Your task to perform on an android device: What's US dollar exchange rate against the Chinese Yuan? Image 0: 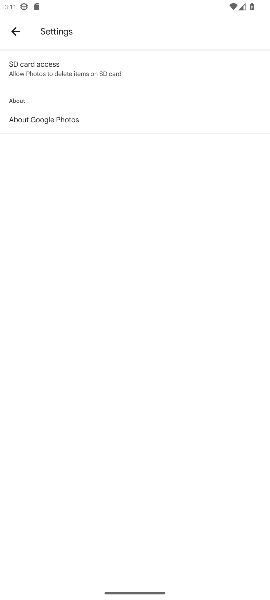
Step 0: press home button
Your task to perform on an android device: What's US dollar exchange rate against the Chinese Yuan? Image 1: 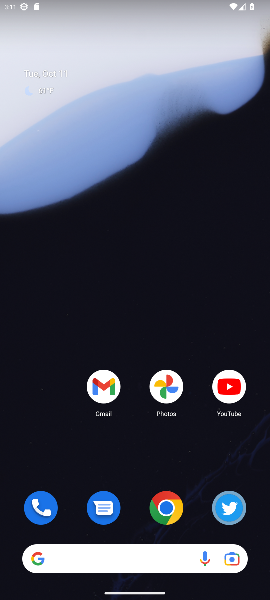
Step 1: click (171, 510)
Your task to perform on an android device: What's US dollar exchange rate against the Chinese Yuan? Image 2: 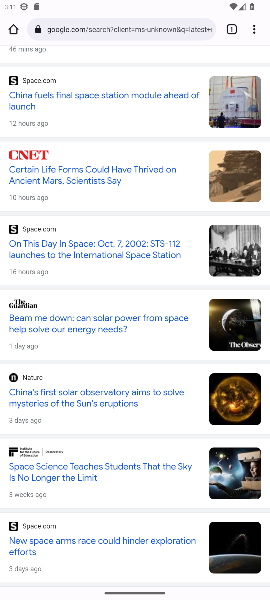
Step 2: click (160, 30)
Your task to perform on an android device: What's US dollar exchange rate against the Chinese Yuan? Image 3: 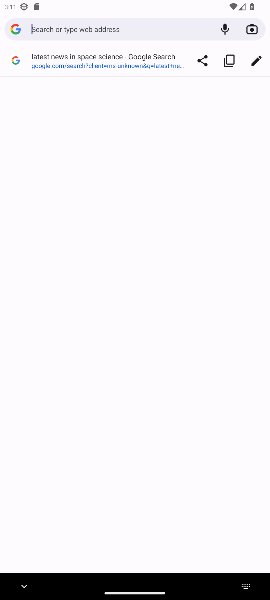
Step 3: type "US dollar exchange rate against the Chinese Yuan"
Your task to perform on an android device: What's US dollar exchange rate against the Chinese Yuan? Image 4: 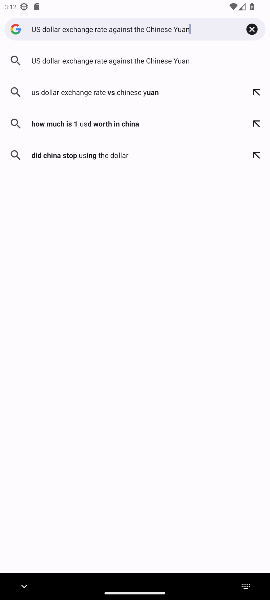
Step 4: type ""
Your task to perform on an android device: What's US dollar exchange rate against the Chinese Yuan? Image 5: 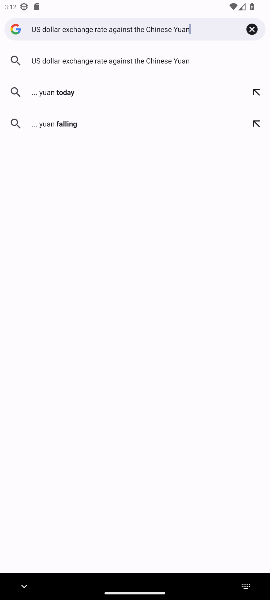
Step 5: press enter
Your task to perform on an android device: What's US dollar exchange rate against the Chinese Yuan? Image 6: 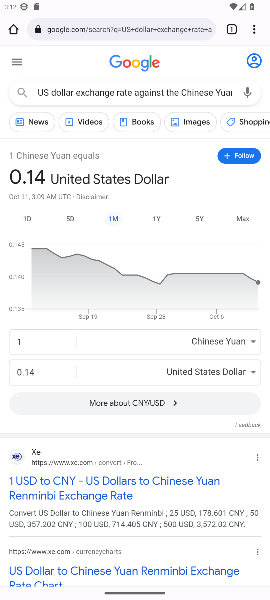
Step 6: task complete